Your task to perform on an android device: open chrome privacy settings Image 0: 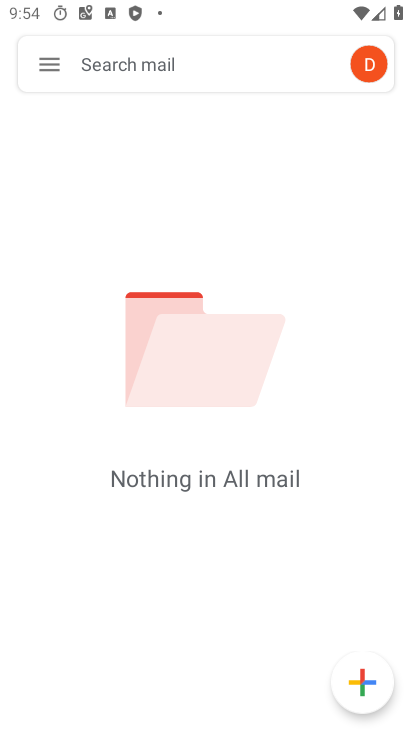
Step 0: press home button
Your task to perform on an android device: open chrome privacy settings Image 1: 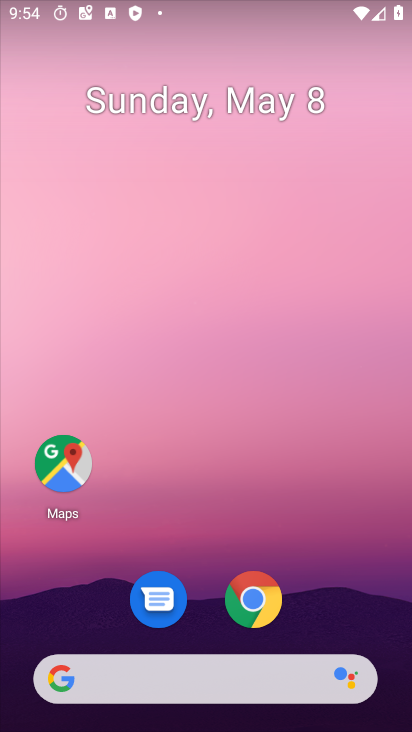
Step 1: click (242, 615)
Your task to perform on an android device: open chrome privacy settings Image 2: 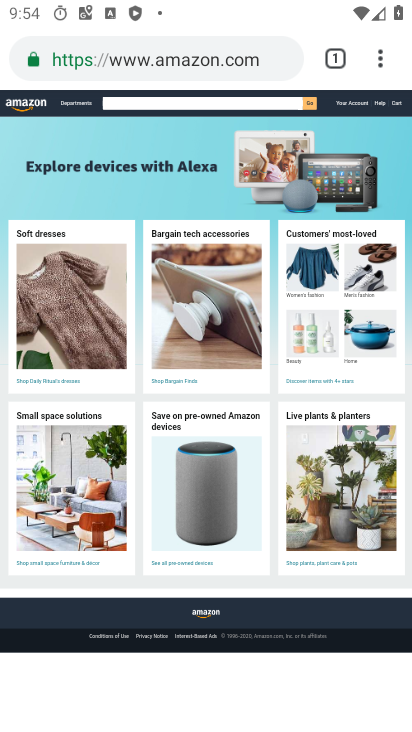
Step 2: click (384, 62)
Your task to perform on an android device: open chrome privacy settings Image 3: 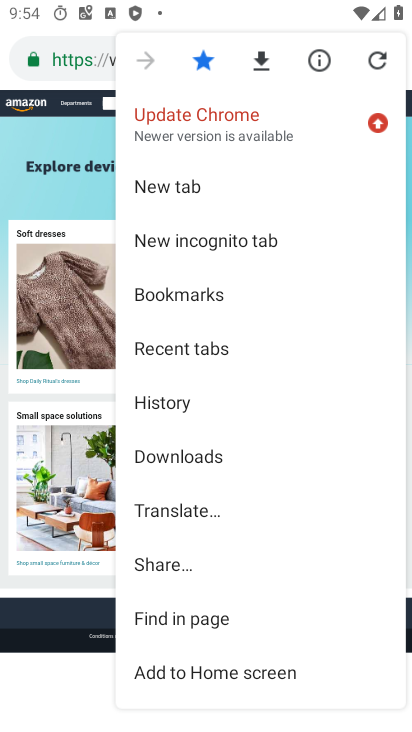
Step 3: drag from (212, 521) to (262, 96)
Your task to perform on an android device: open chrome privacy settings Image 4: 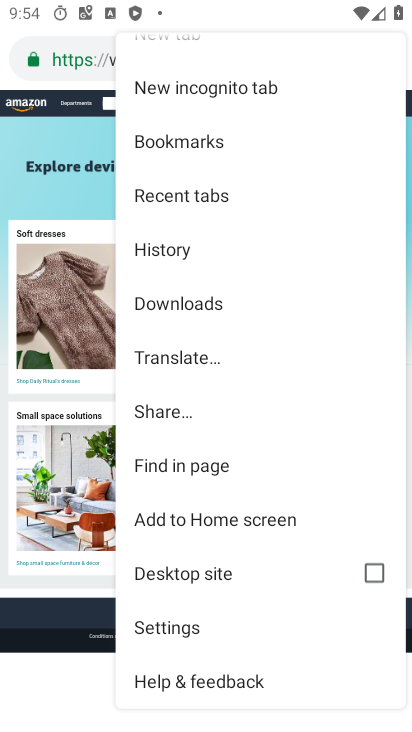
Step 4: click (214, 618)
Your task to perform on an android device: open chrome privacy settings Image 5: 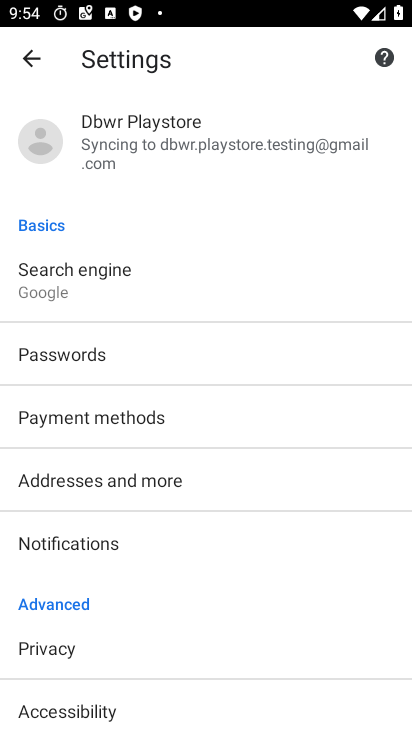
Step 5: drag from (221, 544) to (214, 441)
Your task to perform on an android device: open chrome privacy settings Image 6: 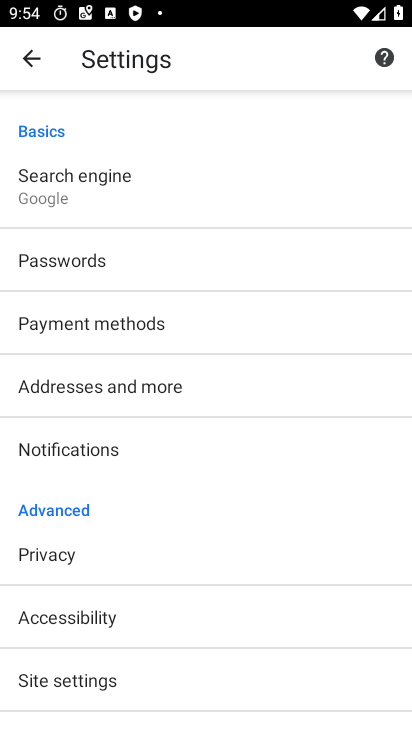
Step 6: drag from (168, 543) to (187, 242)
Your task to perform on an android device: open chrome privacy settings Image 7: 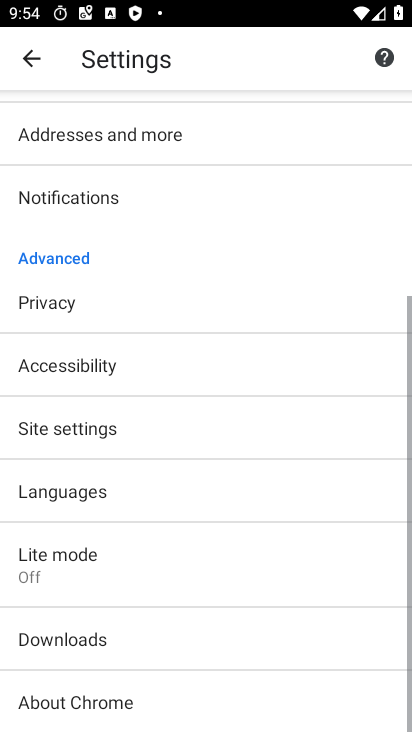
Step 7: drag from (123, 499) to (122, 452)
Your task to perform on an android device: open chrome privacy settings Image 8: 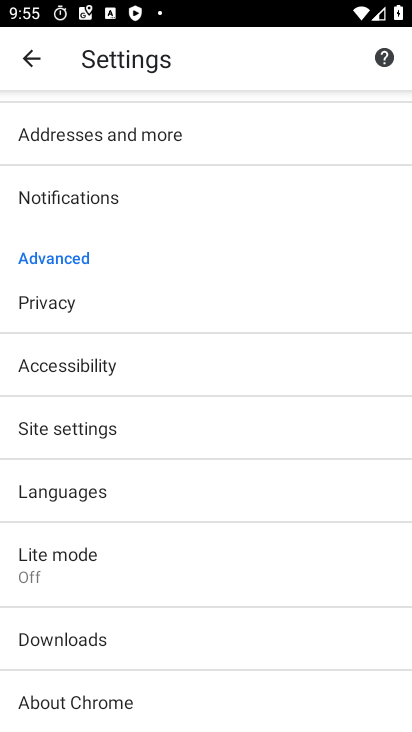
Step 8: click (101, 307)
Your task to perform on an android device: open chrome privacy settings Image 9: 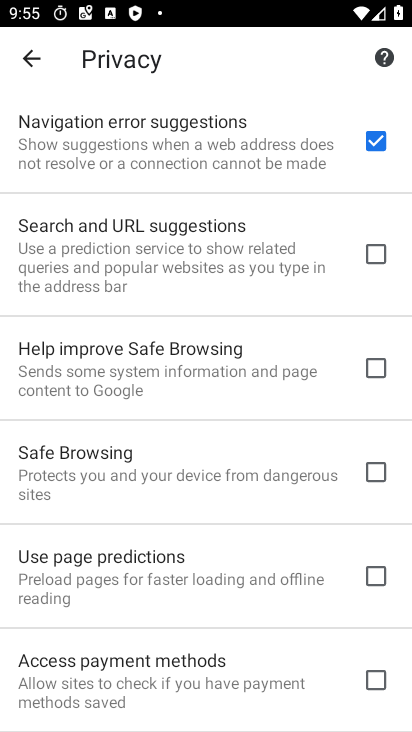
Step 9: task complete